Your task to perform on an android device: See recent photos Image 0: 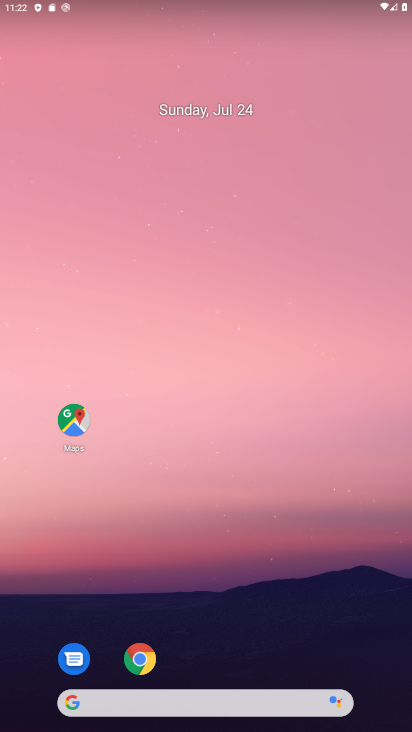
Step 0: drag from (142, 414) to (41, 7)
Your task to perform on an android device: See recent photos Image 1: 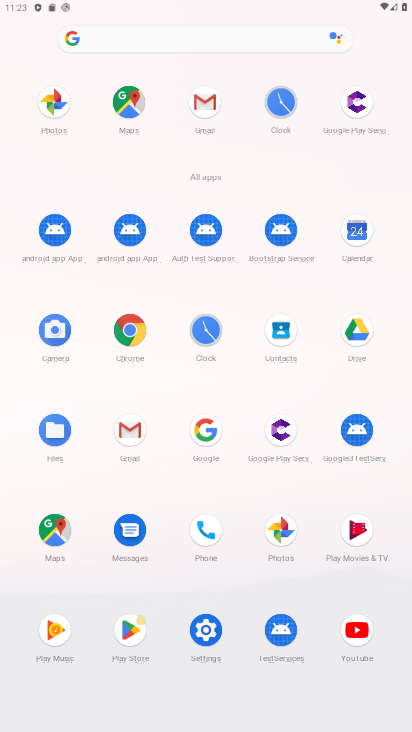
Step 1: click (266, 535)
Your task to perform on an android device: See recent photos Image 2: 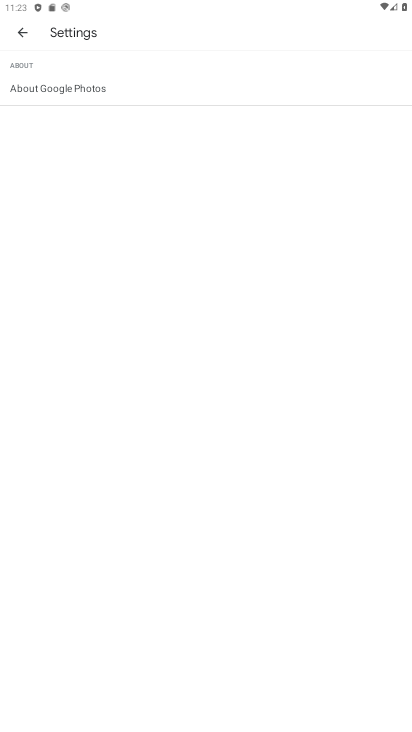
Step 2: click (23, 29)
Your task to perform on an android device: See recent photos Image 3: 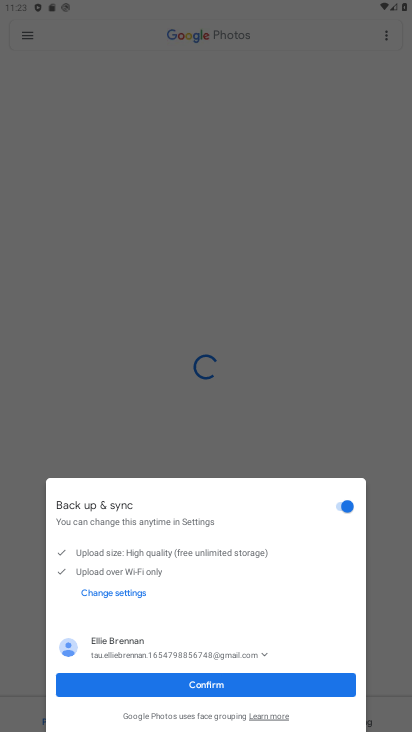
Step 3: click (150, 684)
Your task to perform on an android device: See recent photos Image 4: 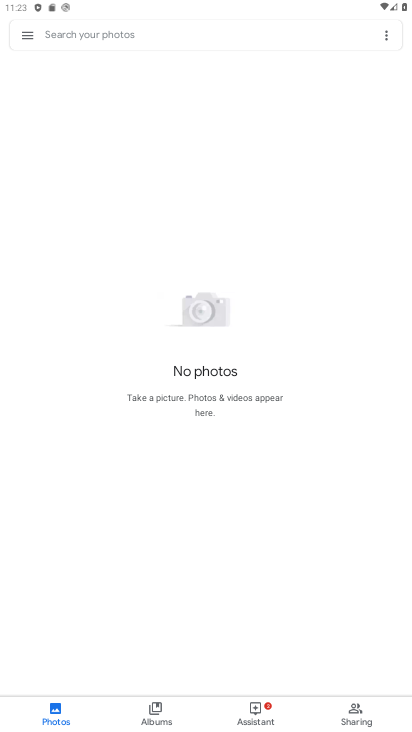
Step 4: task complete